Your task to perform on an android device: turn off sleep mode Image 0: 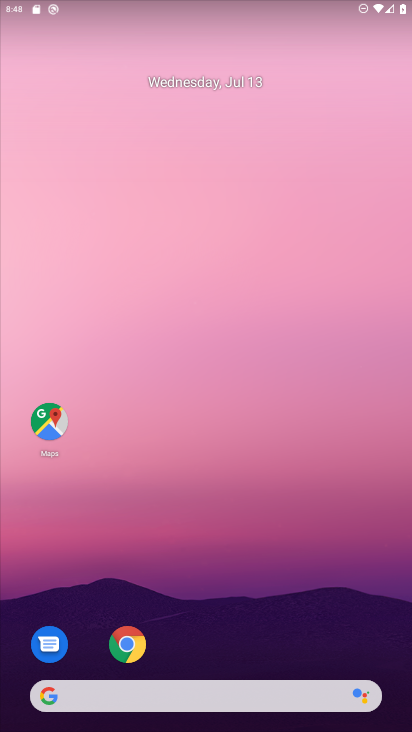
Step 0: press home button
Your task to perform on an android device: turn off sleep mode Image 1: 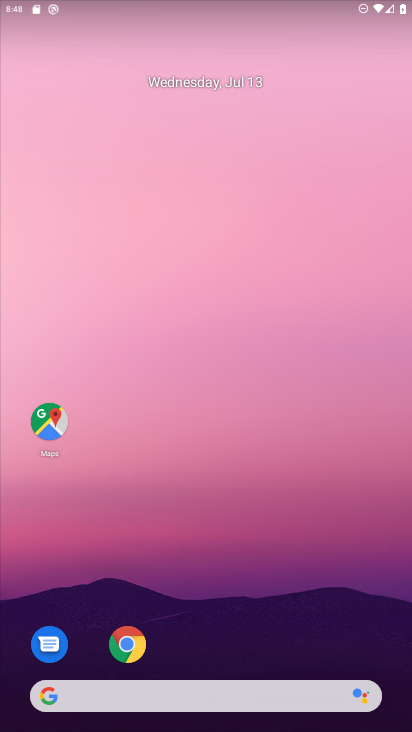
Step 1: drag from (258, 491) to (143, 25)
Your task to perform on an android device: turn off sleep mode Image 2: 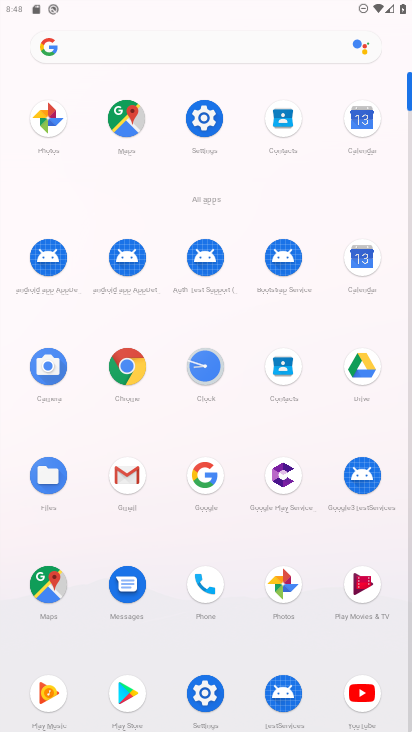
Step 2: click (213, 105)
Your task to perform on an android device: turn off sleep mode Image 3: 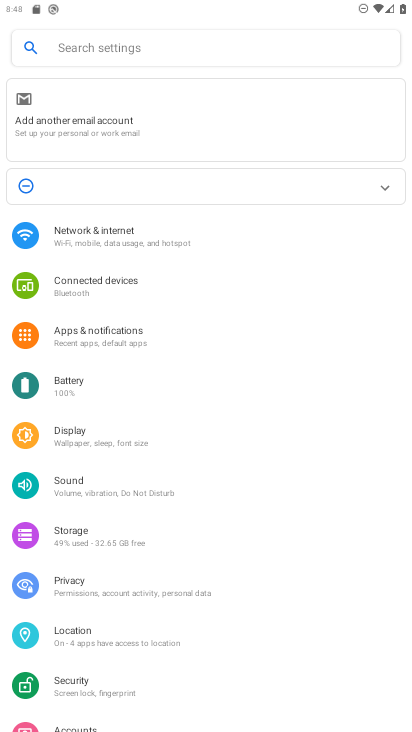
Step 3: click (92, 445)
Your task to perform on an android device: turn off sleep mode Image 4: 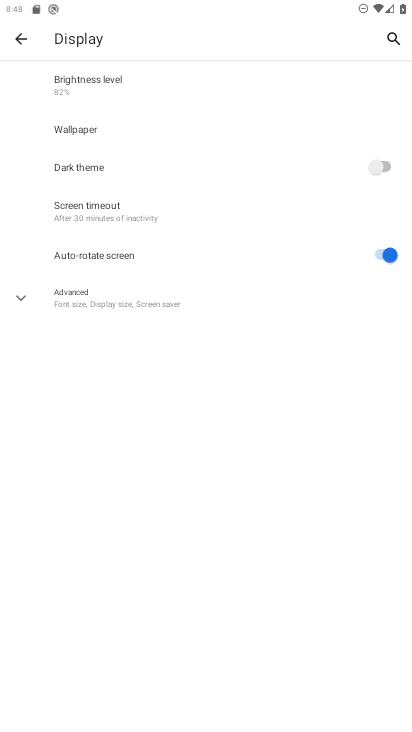
Step 4: click (23, 297)
Your task to perform on an android device: turn off sleep mode Image 5: 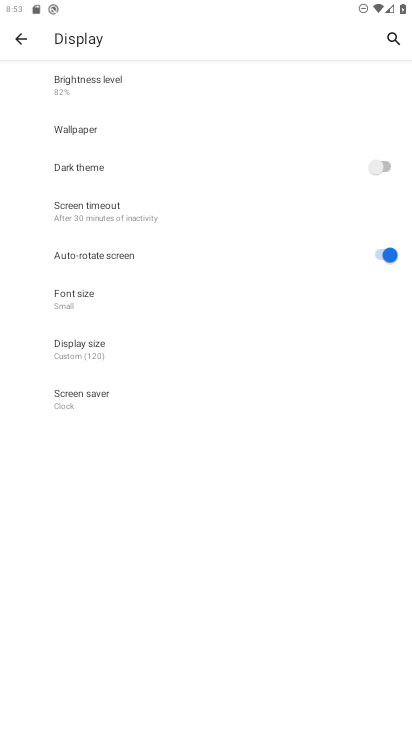
Step 5: task complete